Your task to perform on an android device: turn off wifi Image 0: 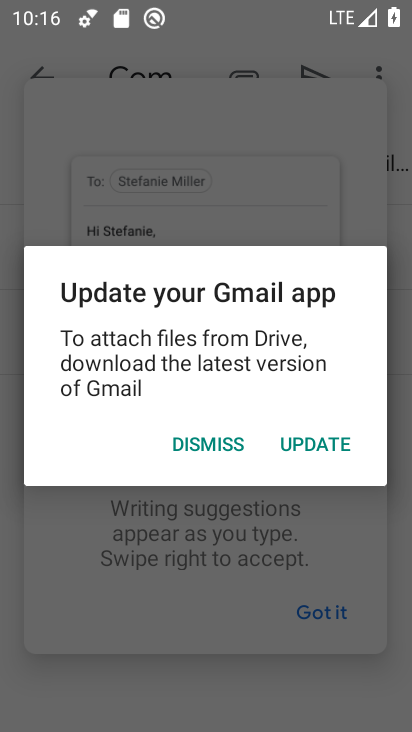
Step 0: press home button
Your task to perform on an android device: turn off wifi Image 1: 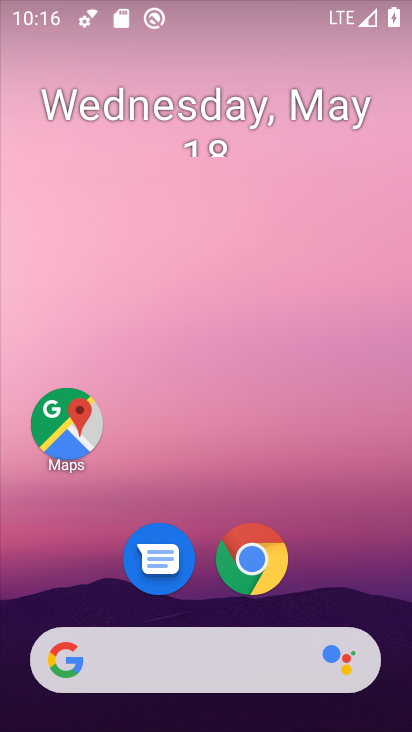
Step 1: drag from (198, 595) to (221, 104)
Your task to perform on an android device: turn off wifi Image 2: 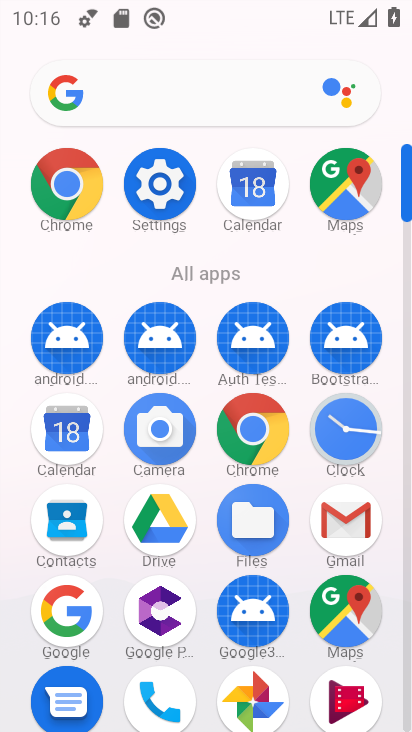
Step 2: click (156, 190)
Your task to perform on an android device: turn off wifi Image 3: 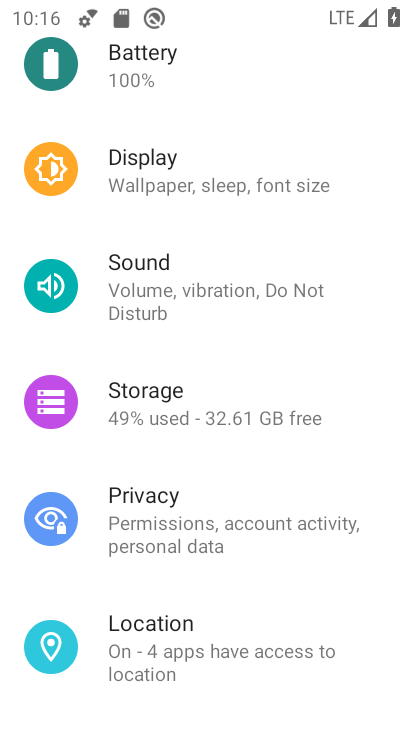
Step 3: drag from (246, 226) to (214, 499)
Your task to perform on an android device: turn off wifi Image 4: 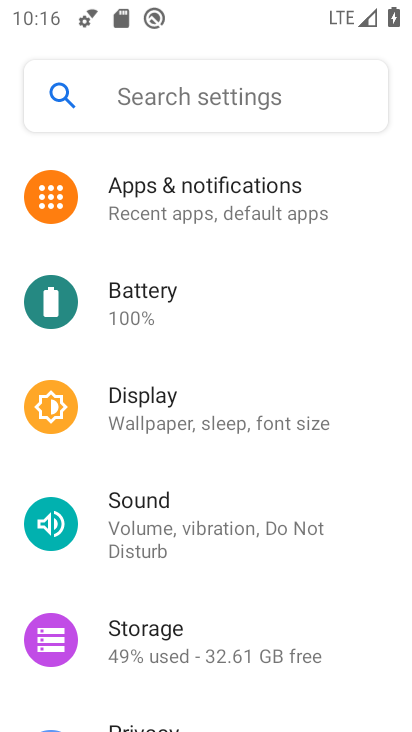
Step 4: drag from (182, 219) to (153, 542)
Your task to perform on an android device: turn off wifi Image 5: 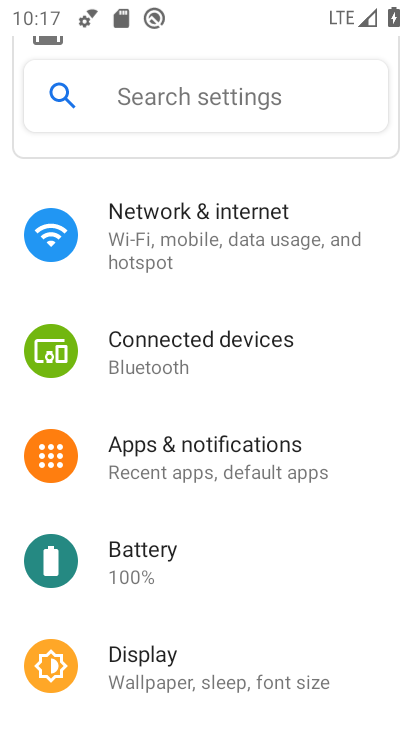
Step 5: click (193, 246)
Your task to perform on an android device: turn off wifi Image 6: 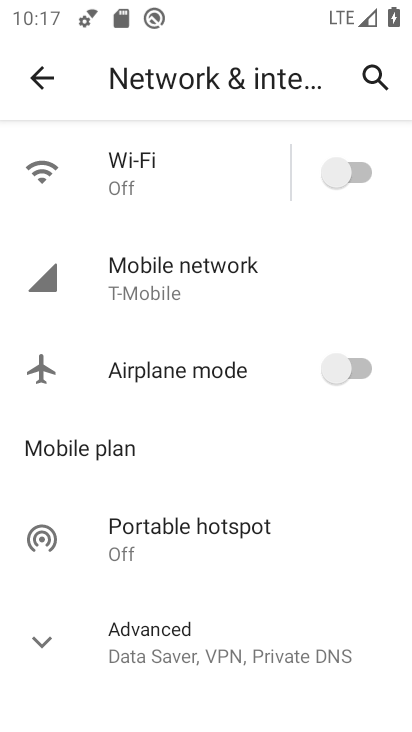
Step 6: task complete